Your task to perform on an android device: choose inbox layout in the gmail app Image 0: 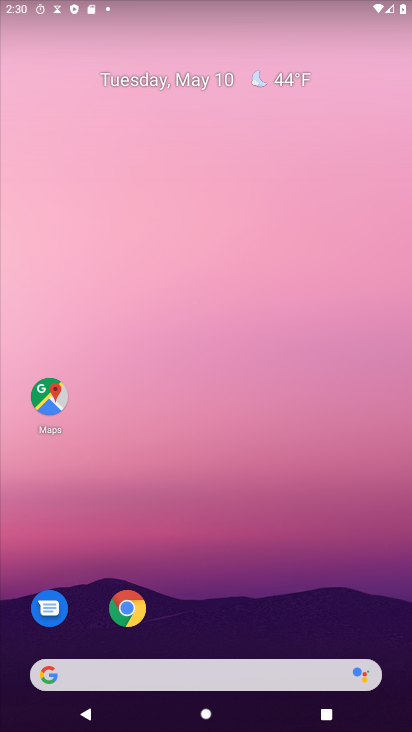
Step 0: drag from (358, 612) to (348, 1)
Your task to perform on an android device: choose inbox layout in the gmail app Image 1: 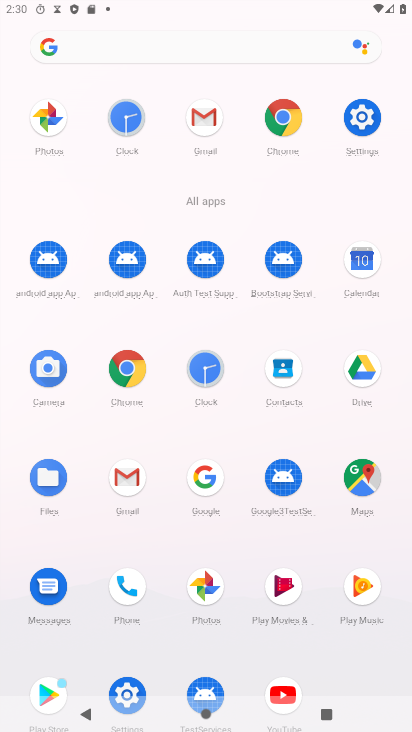
Step 1: click (196, 115)
Your task to perform on an android device: choose inbox layout in the gmail app Image 2: 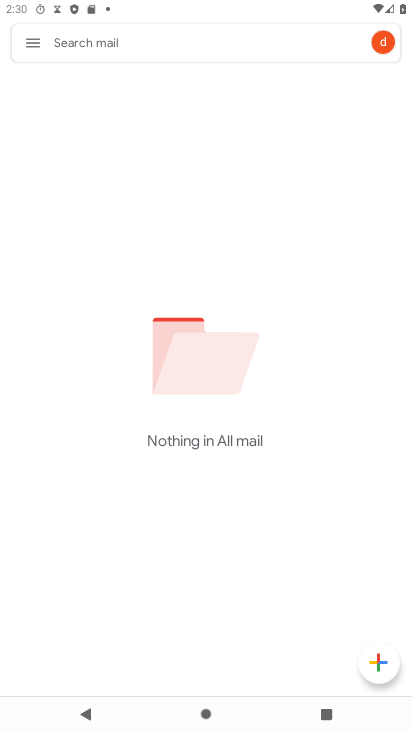
Step 2: click (28, 45)
Your task to perform on an android device: choose inbox layout in the gmail app Image 3: 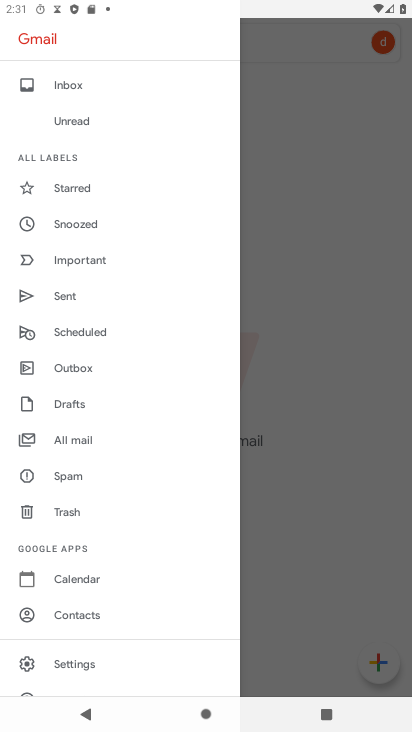
Step 3: click (66, 658)
Your task to perform on an android device: choose inbox layout in the gmail app Image 4: 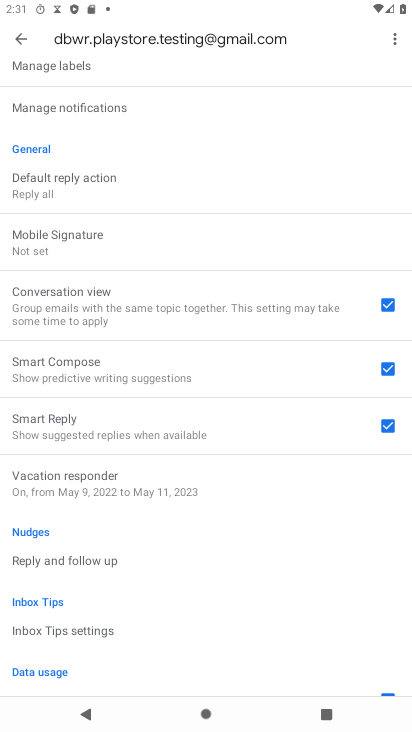
Step 4: drag from (141, 196) to (154, 500)
Your task to perform on an android device: choose inbox layout in the gmail app Image 5: 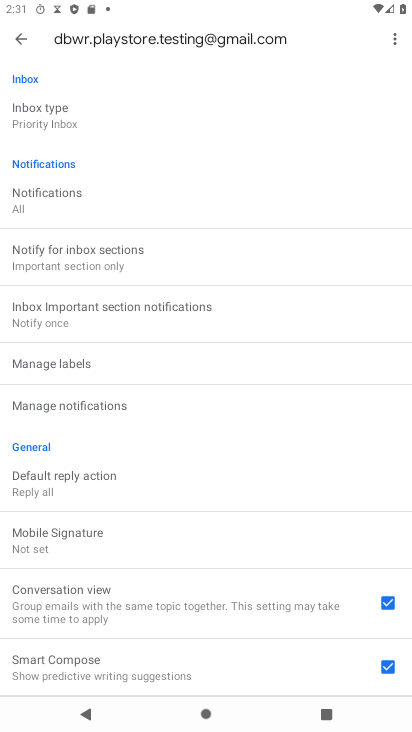
Step 5: drag from (183, 189) to (184, 422)
Your task to perform on an android device: choose inbox layout in the gmail app Image 6: 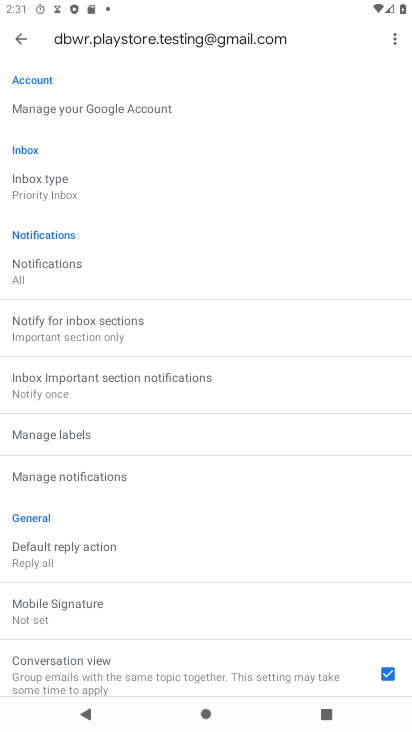
Step 6: click (40, 195)
Your task to perform on an android device: choose inbox layout in the gmail app Image 7: 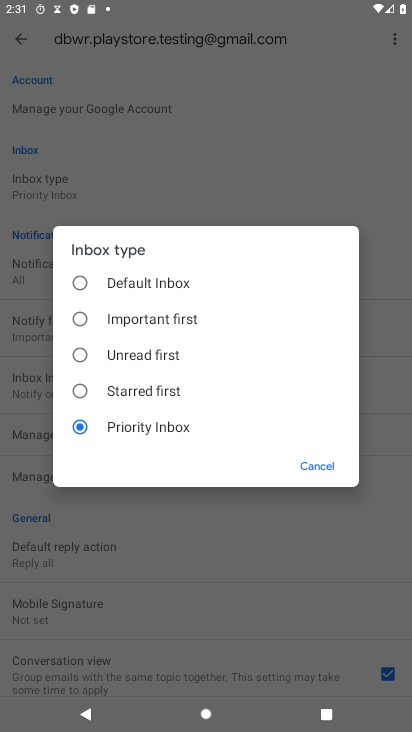
Step 7: click (77, 341)
Your task to perform on an android device: choose inbox layout in the gmail app Image 8: 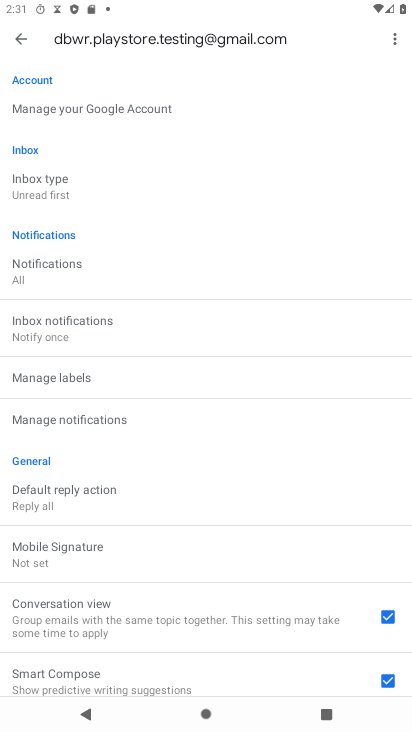
Step 8: task complete